Your task to perform on an android device: change keyboard looks Image 0: 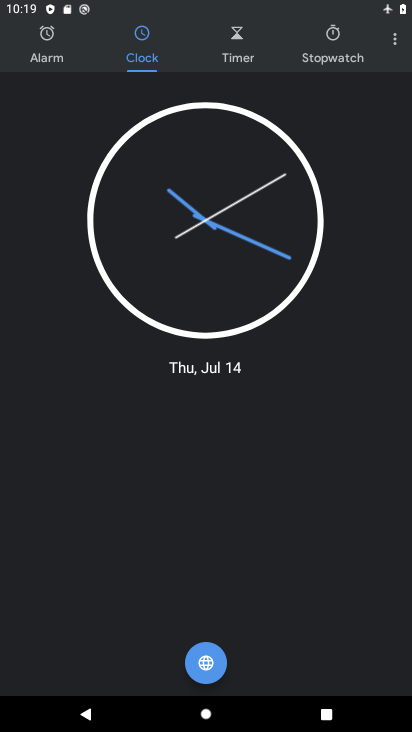
Step 0: press home button
Your task to perform on an android device: change keyboard looks Image 1: 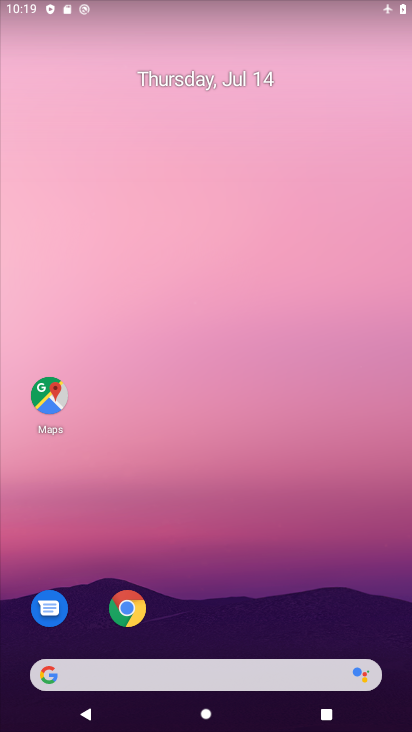
Step 1: drag from (200, 609) to (259, 7)
Your task to perform on an android device: change keyboard looks Image 2: 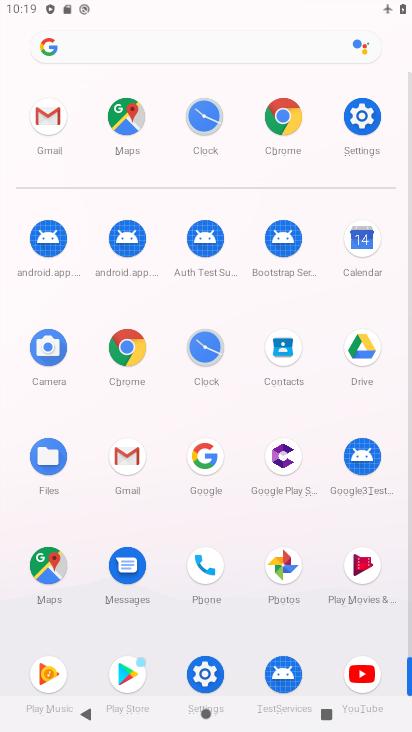
Step 2: click (360, 130)
Your task to perform on an android device: change keyboard looks Image 3: 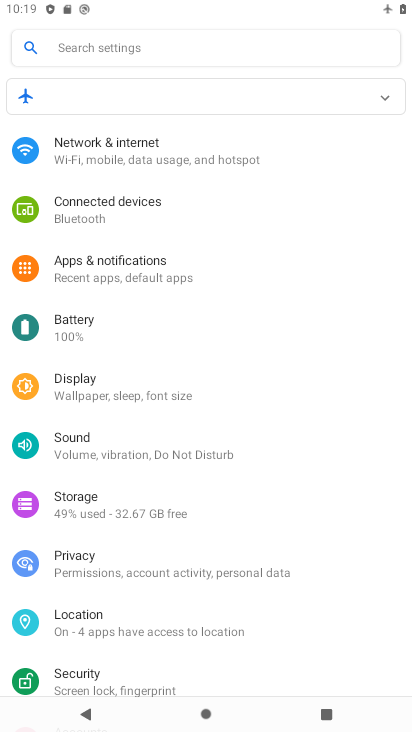
Step 3: drag from (93, 621) to (203, 315)
Your task to perform on an android device: change keyboard looks Image 4: 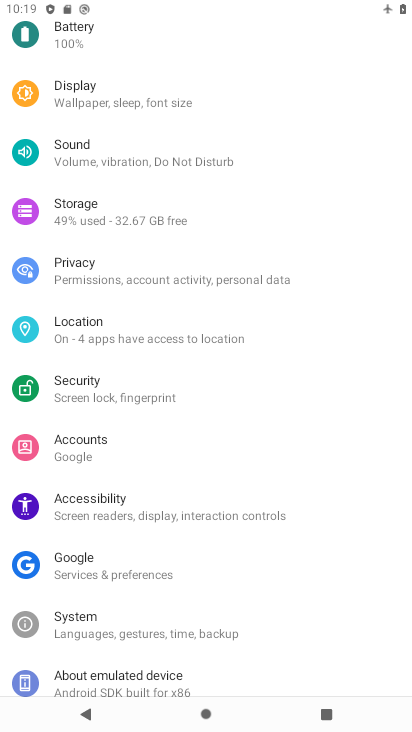
Step 4: drag from (110, 607) to (115, 422)
Your task to perform on an android device: change keyboard looks Image 5: 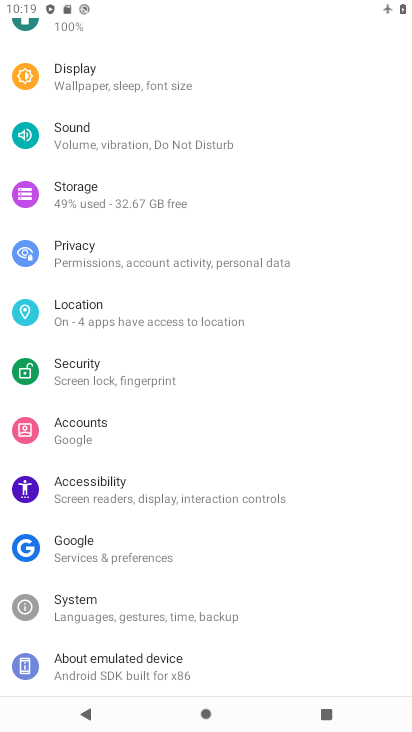
Step 5: click (109, 612)
Your task to perform on an android device: change keyboard looks Image 6: 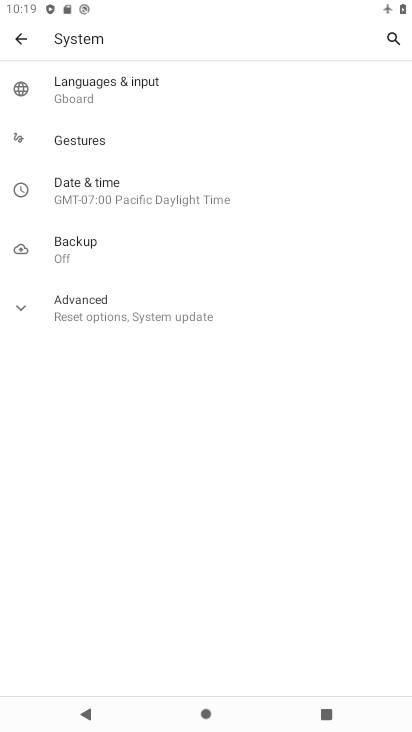
Step 6: click (116, 85)
Your task to perform on an android device: change keyboard looks Image 7: 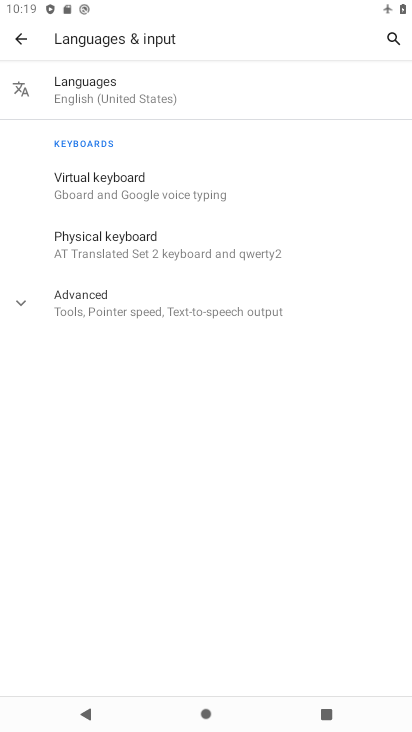
Step 7: click (136, 192)
Your task to perform on an android device: change keyboard looks Image 8: 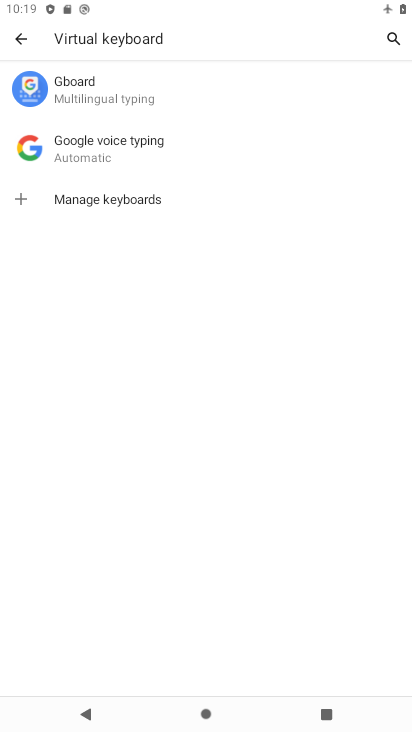
Step 8: click (103, 95)
Your task to perform on an android device: change keyboard looks Image 9: 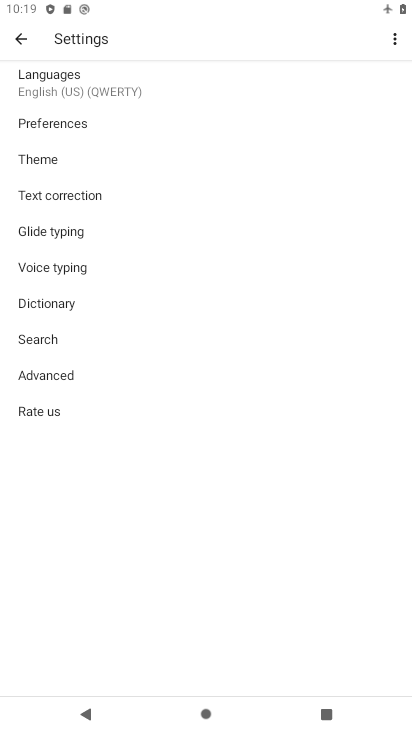
Step 9: click (54, 161)
Your task to perform on an android device: change keyboard looks Image 10: 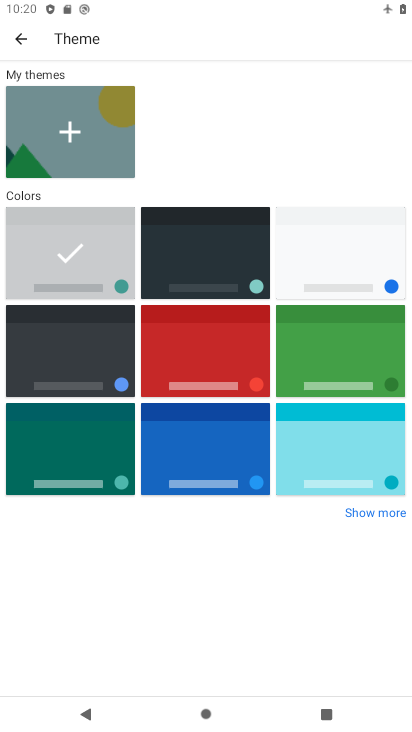
Step 10: click (214, 265)
Your task to perform on an android device: change keyboard looks Image 11: 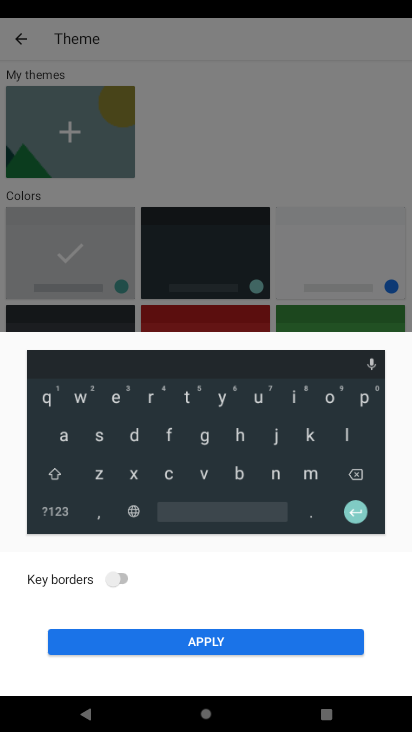
Step 11: click (229, 640)
Your task to perform on an android device: change keyboard looks Image 12: 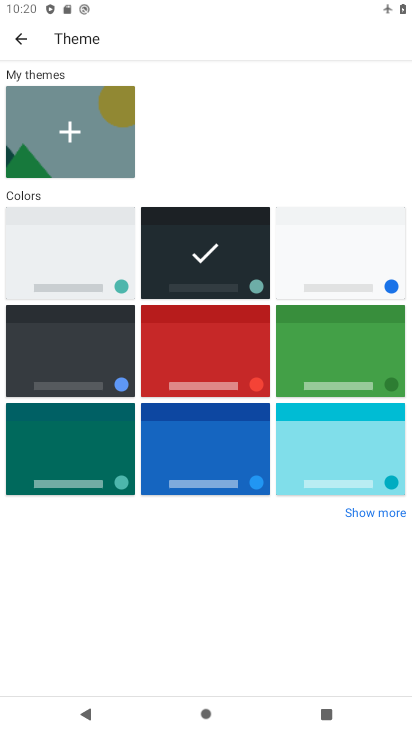
Step 12: task complete